Your task to perform on an android device: remove spam from my inbox in the gmail app Image 0: 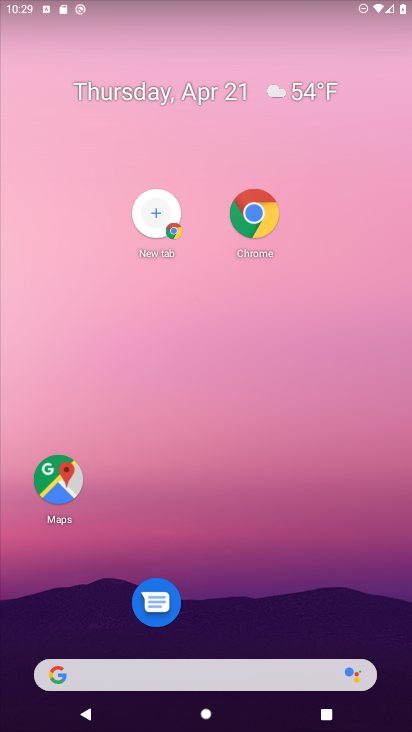
Step 0: drag from (201, 633) to (193, 87)
Your task to perform on an android device: remove spam from my inbox in the gmail app Image 1: 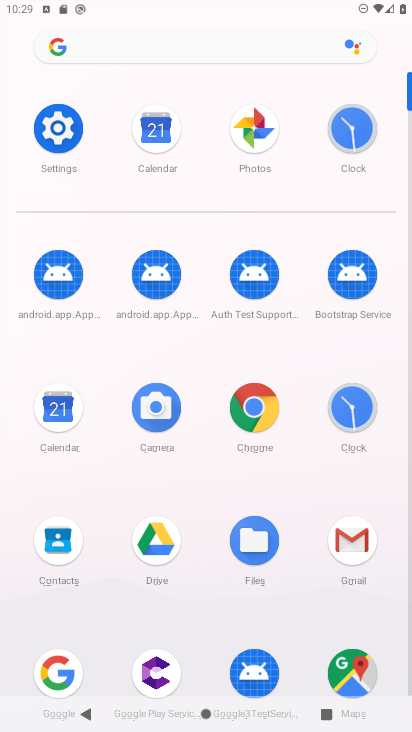
Step 1: click (359, 537)
Your task to perform on an android device: remove spam from my inbox in the gmail app Image 2: 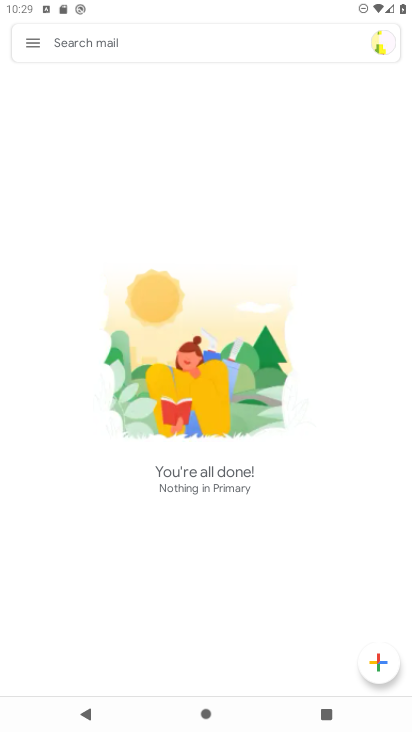
Step 2: click (33, 41)
Your task to perform on an android device: remove spam from my inbox in the gmail app Image 3: 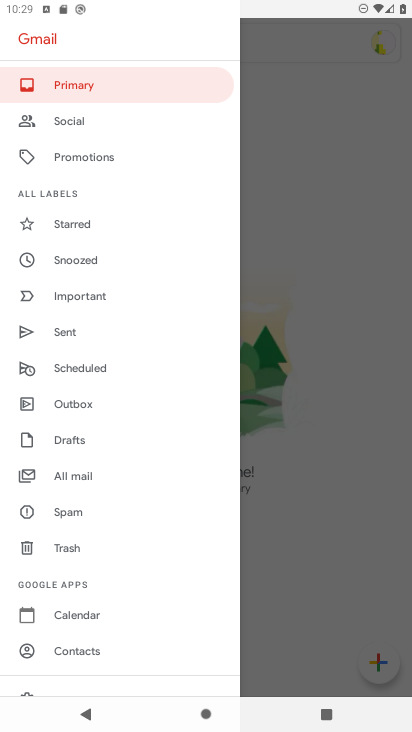
Step 3: click (106, 505)
Your task to perform on an android device: remove spam from my inbox in the gmail app Image 4: 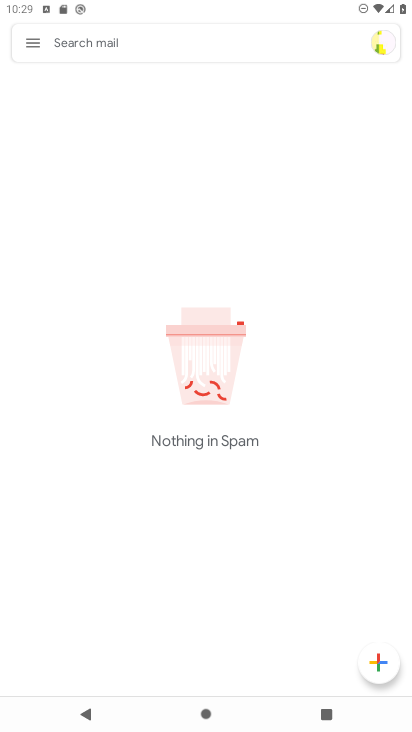
Step 4: task complete